Your task to perform on an android device: What's the weather? Image 0: 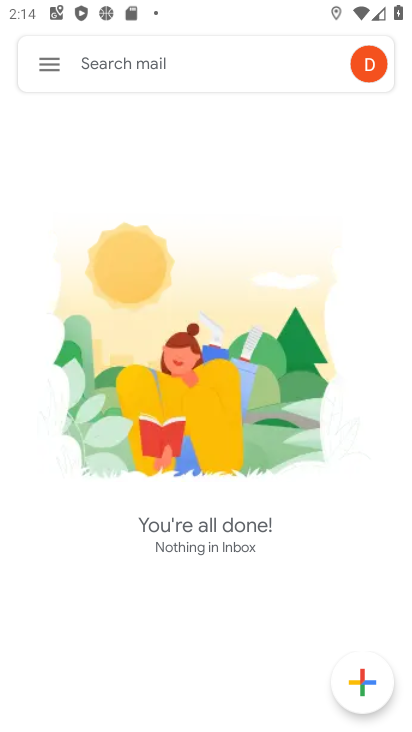
Step 0: press home button
Your task to perform on an android device: What's the weather? Image 1: 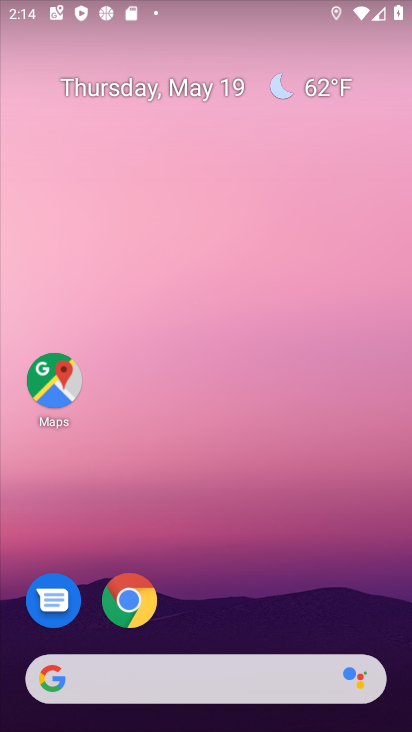
Step 1: click (254, 673)
Your task to perform on an android device: What's the weather? Image 2: 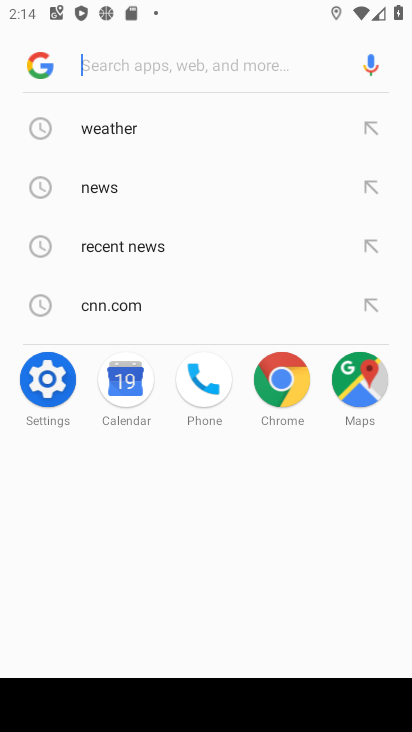
Step 2: click (135, 136)
Your task to perform on an android device: What's the weather? Image 3: 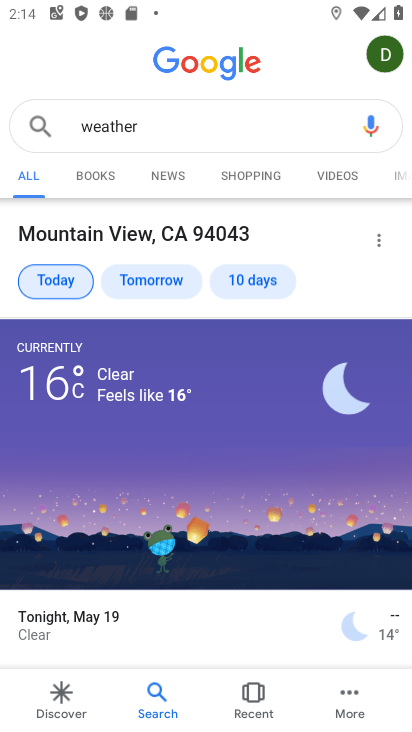
Step 3: task complete